Your task to perform on an android device: Do I have any events this weekend? Image 0: 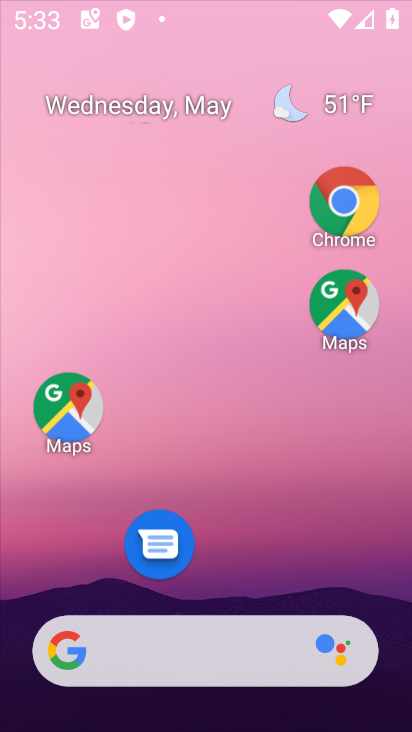
Step 0: drag from (189, 331) to (190, 6)
Your task to perform on an android device: Do I have any events this weekend? Image 1: 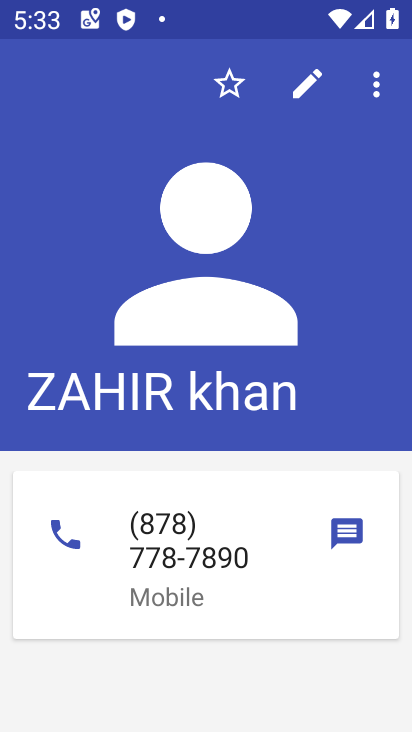
Step 1: press home button
Your task to perform on an android device: Do I have any events this weekend? Image 2: 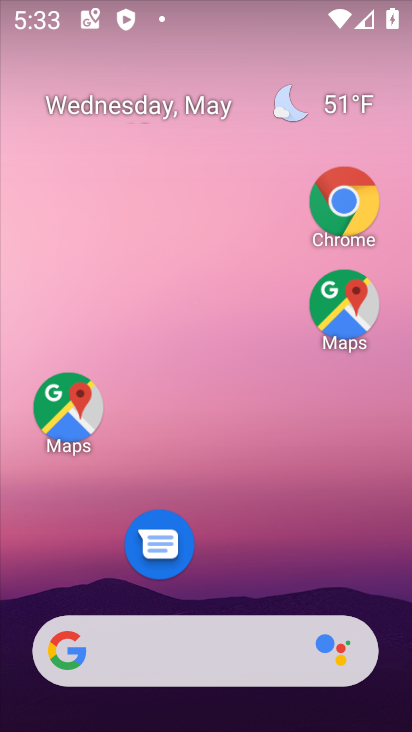
Step 2: drag from (246, 570) to (174, 109)
Your task to perform on an android device: Do I have any events this weekend? Image 3: 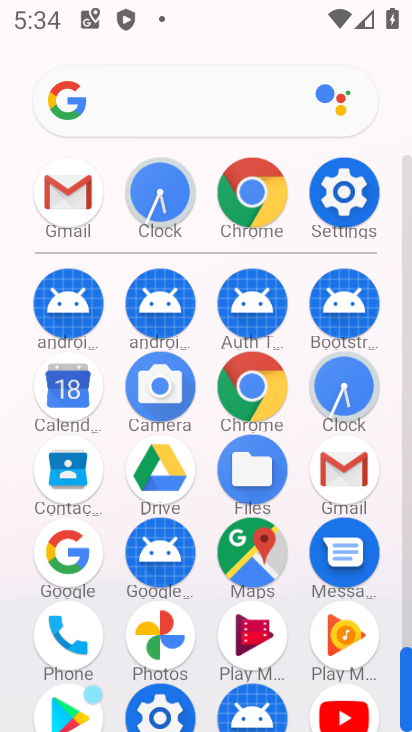
Step 3: click (66, 409)
Your task to perform on an android device: Do I have any events this weekend? Image 4: 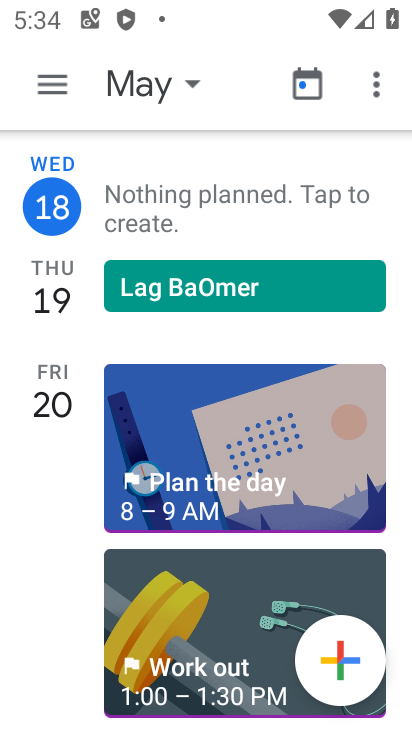
Step 4: drag from (192, 602) to (172, 223)
Your task to perform on an android device: Do I have any events this weekend? Image 5: 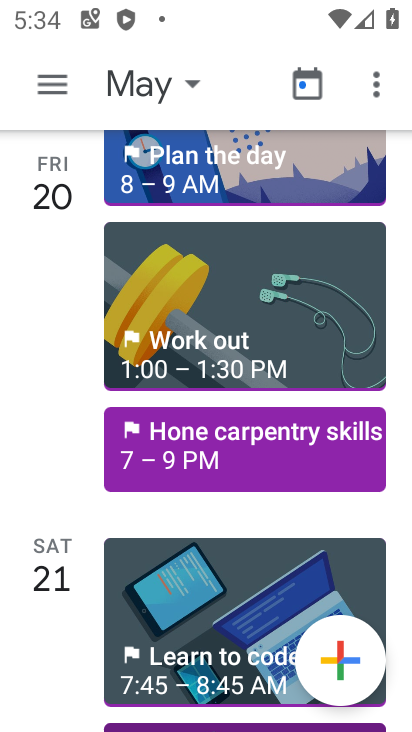
Step 5: drag from (186, 552) to (172, 285)
Your task to perform on an android device: Do I have any events this weekend? Image 6: 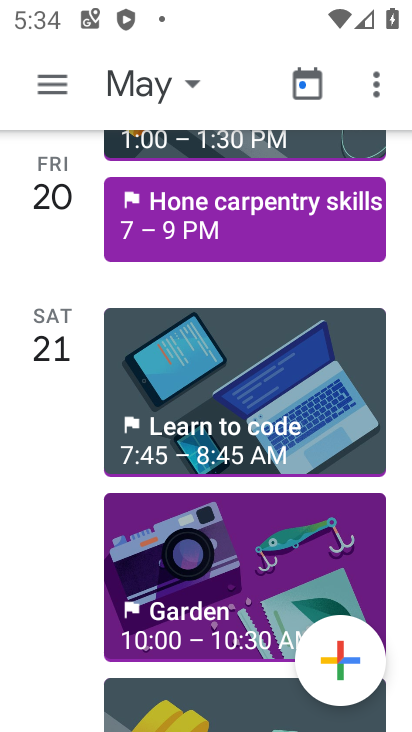
Step 6: drag from (211, 476) to (195, 197)
Your task to perform on an android device: Do I have any events this weekend? Image 7: 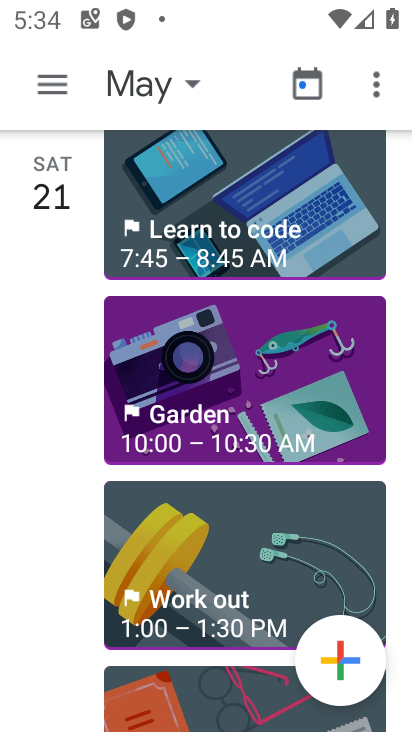
Step 7: drag from (223, 507) to (211, 299)
Your task to perform on an android device: Do I have any events this weekend? Image 8: 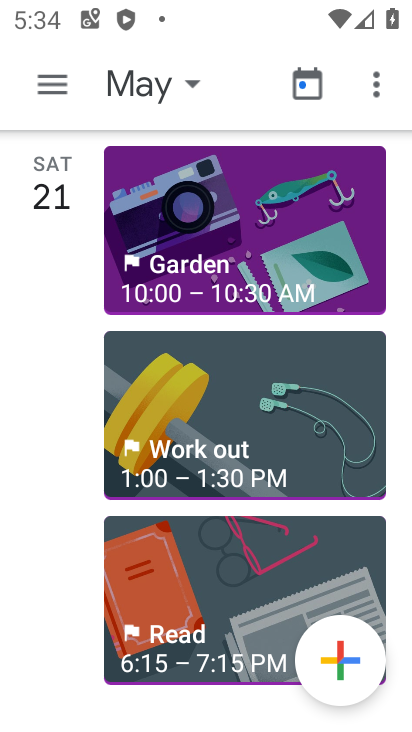
Step 8: click (196, 240)
Your task to perform on an android device: Do I have any events this weekend? Image 9: 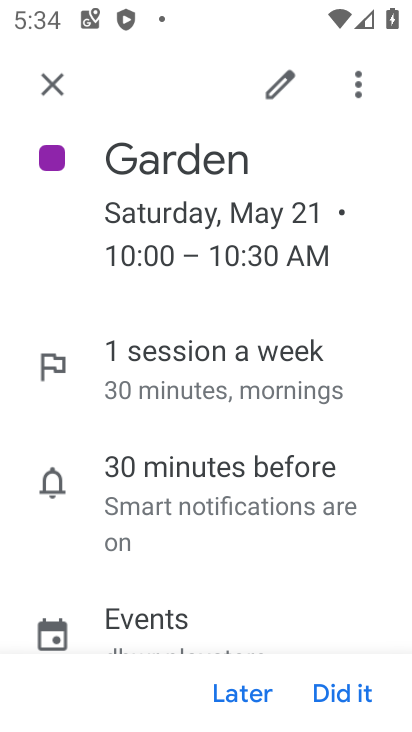
Step 9: click (54, 101)
Your task to perform on an android device: Do I have any events this weekend? Image 10: 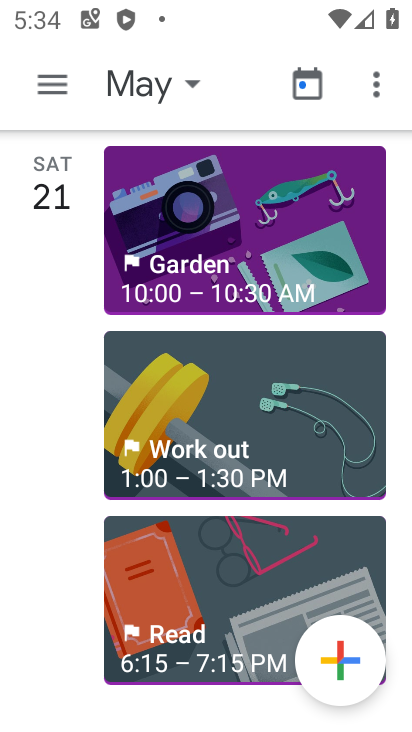
Step 10: task complete